Your task to perform on an android device: toggle location history Image 0: 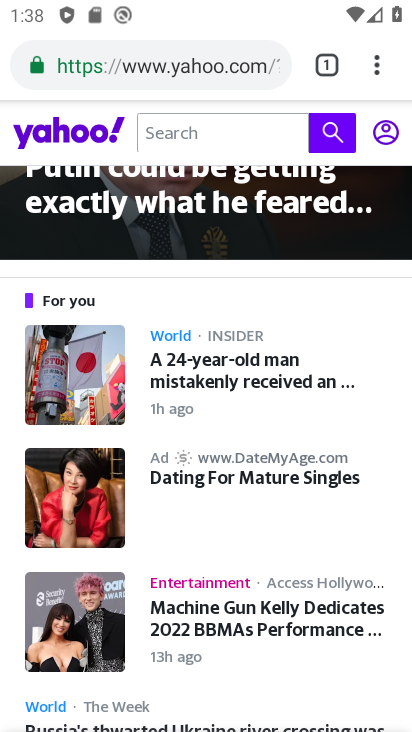
Step 0: press home button
Your task to perform on an android device: toggle location history Image 1: 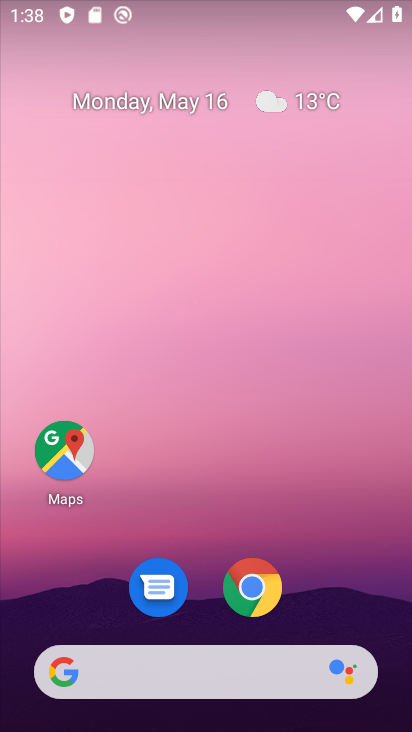
Step 1: drag from (210, 633) to (198, 249)
Your task to perform on an android device: toggle location history Image 2: 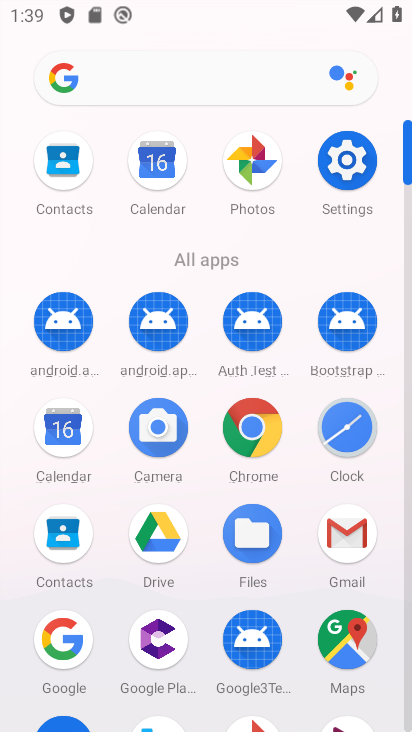
Step 2: click (333, 159)
Your task to perform on an android device: toggle location history Image 3: 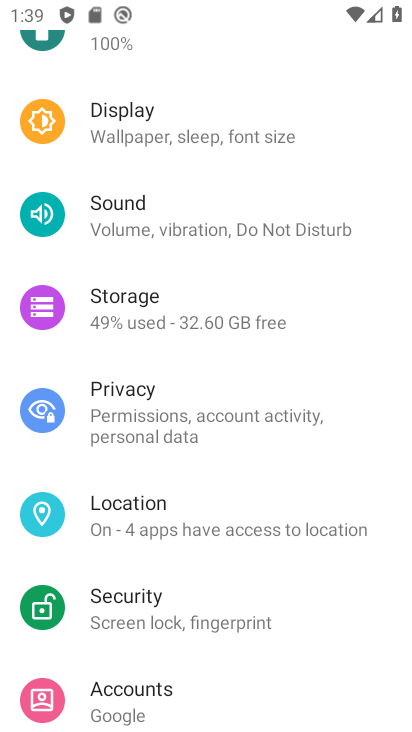
Step 3: click (183, 527)
Your task to perform on an android device: toggle location history Image 4: 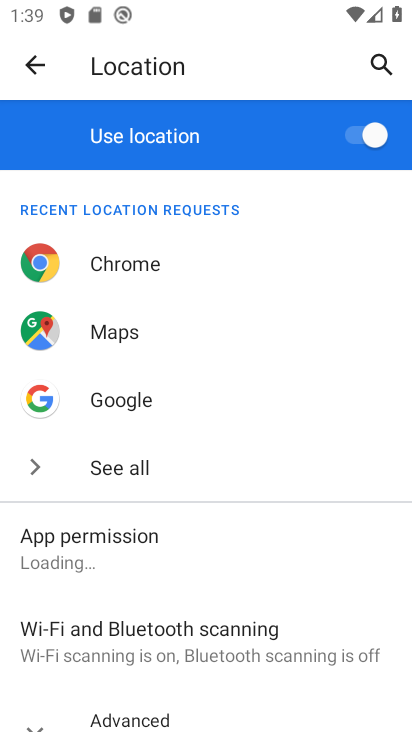
Step 4: drag from (91, 672) to (80, 388)
Your task to perform on an android device: toggle location history Image 5: 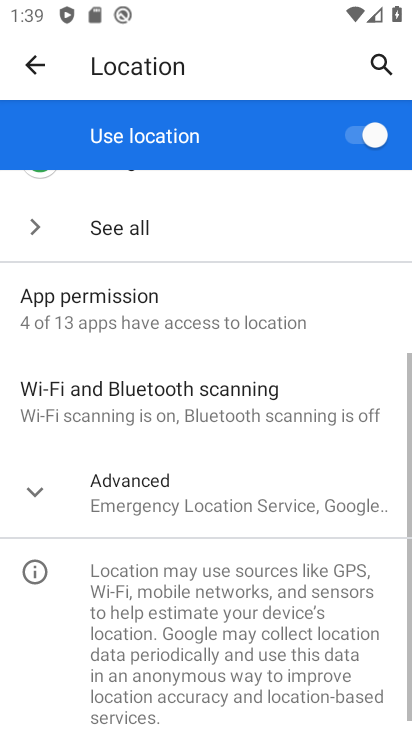
Step 5: click (130, 497)
Your task to perform on an android device: toggle location history Image 6: 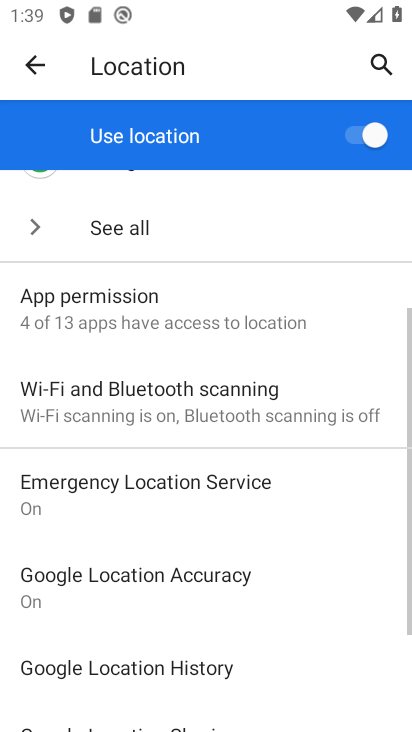
Step 6: drag from (156, 685) to (163, 388)
Your task to perform on an android device: toggle location history Image 7: 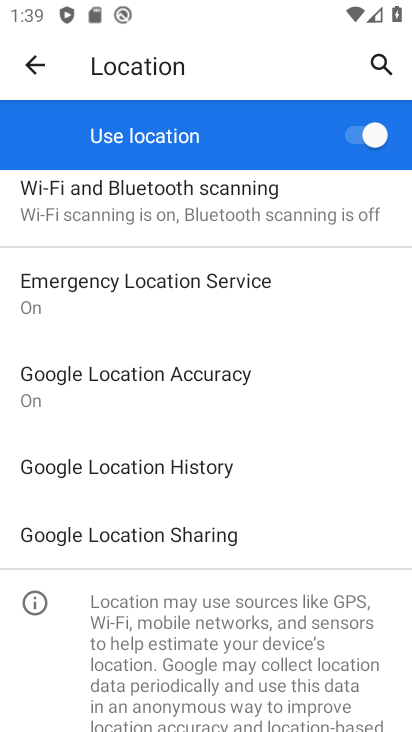
Step 7: click (137, 467)
Your task to perform on an android device: toggle location history Image 8: 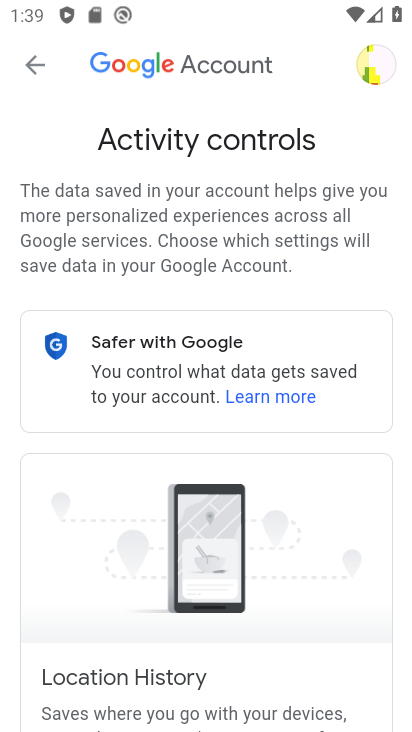
Step 8: drag from (106, 648) to (111, 412)
Your task to perform on an android device: toggle location history Image 9: 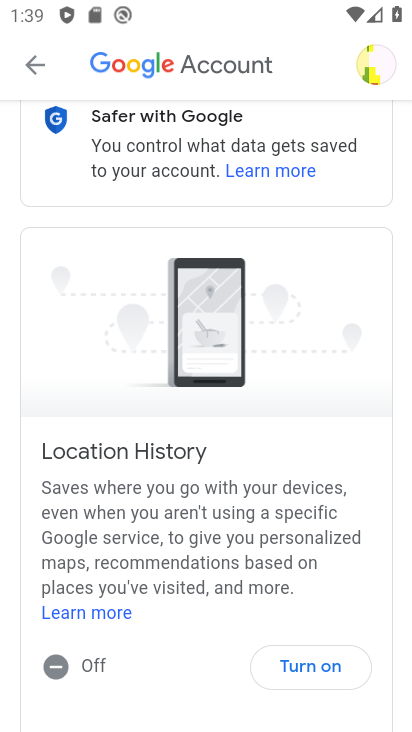
Step 9: click (299, 670)
Your task to perform on an android device: toggle location history Image 10: 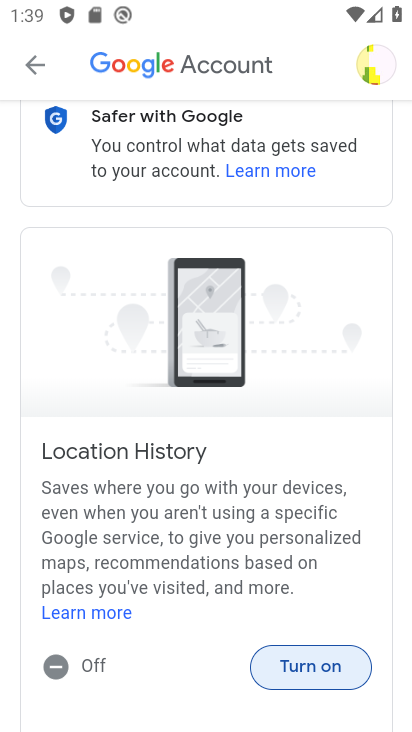
Step 10: click (295, 672)
Your task to perform on an android device: toggle location history Image 11: 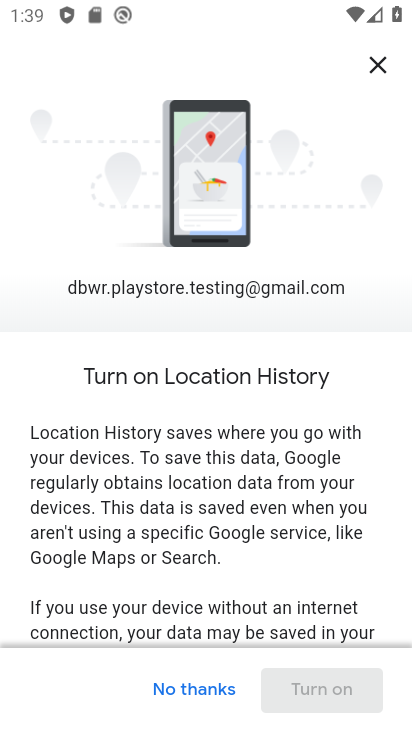
Step 11: drag from (266, 623) to (248, 435)
Your task to perform on an android device: toggle location history Image 12: 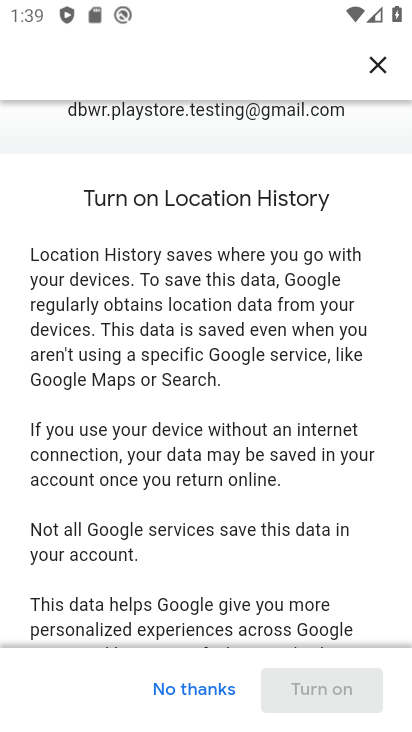
Step 12: drag from (325, 570) to (297, 277)
Your task to perform on an android device: toggle location history Image 13: 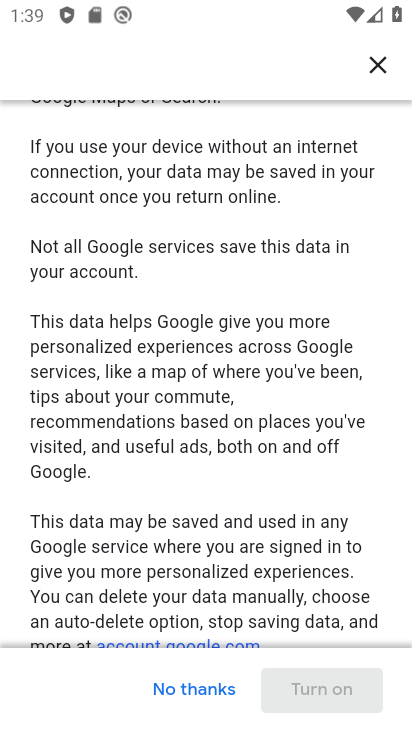
Step 13: drag from (307, 612) to (263, 291)
Your task to perform on an android device: toggle location history Image 14: 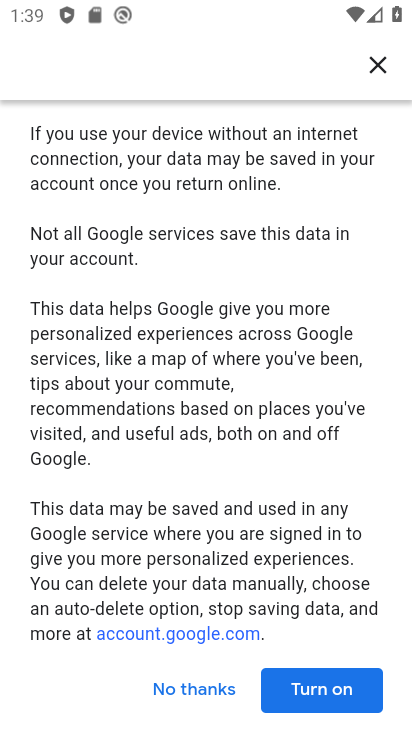
Step 14: click (300, 691)
Your task to perform on an android device: toggle location history Image 15: 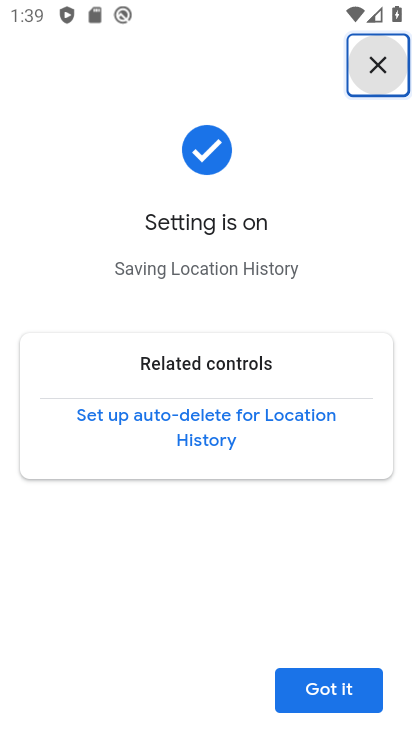
Step 15: click (305, 697)
Your task to perform on an android device: toggle location history Image 16: 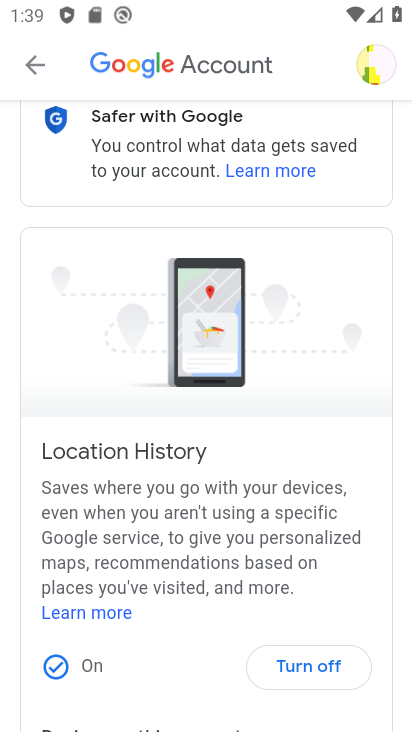
Step 16: task complete